Your task to perform on an android device: turn on sleep mode Image 0: 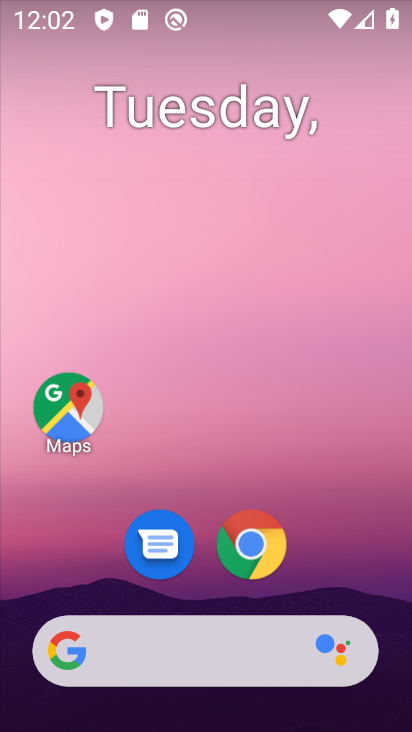
Step 0: task complete